Your task to perform on an android device: toggle show notifications on the lock screen Image 0: 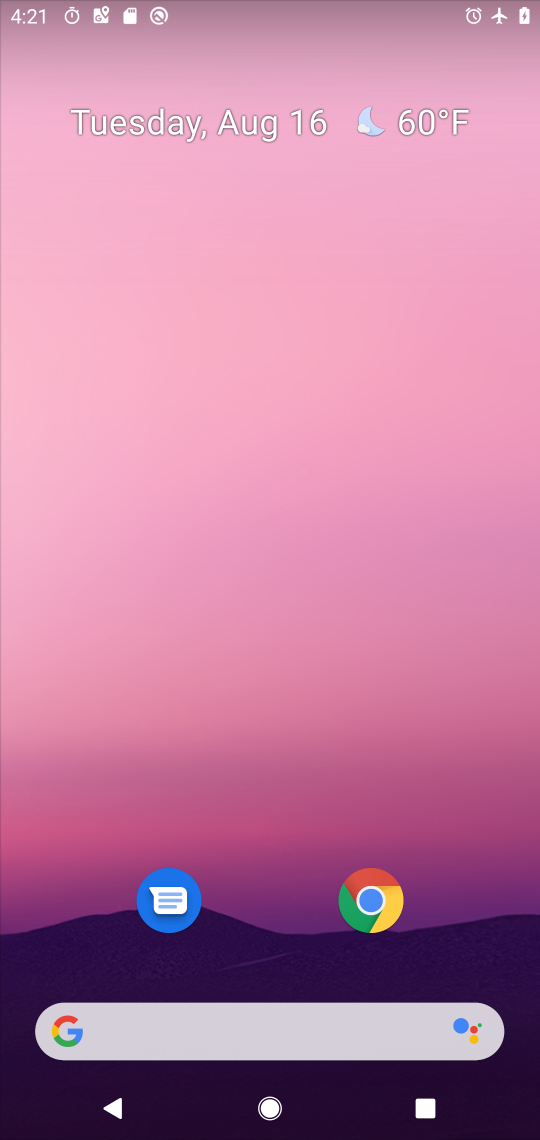
Step 0: click (372, 899)
Your task to perform on an android device: toggle show notifications on the lock screen Image 1: 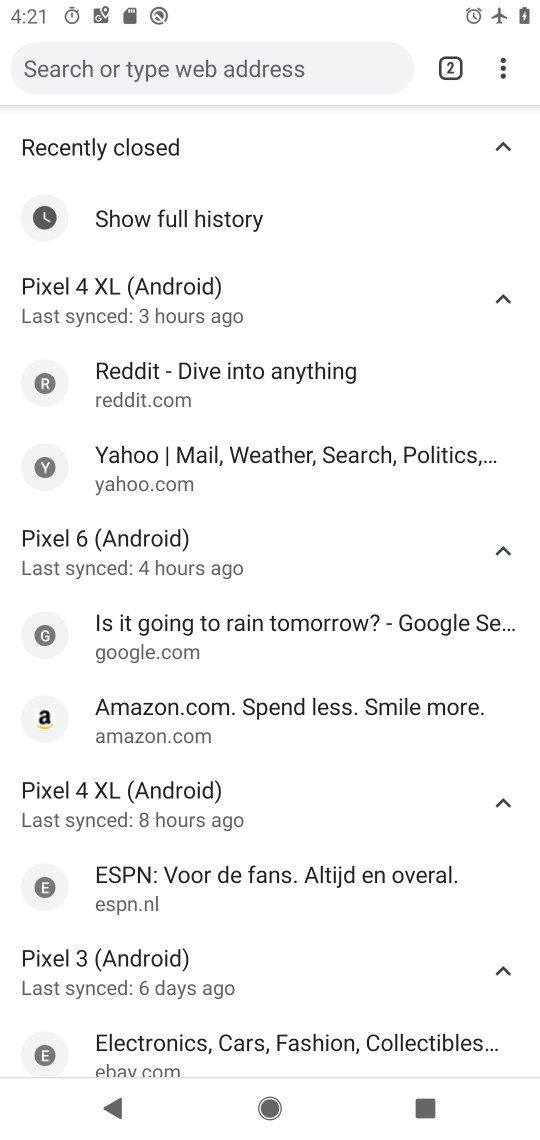
Step 1: click (499, 69)
Your task to perform on an android device: toggle show notifications on the lock screen Image 2: 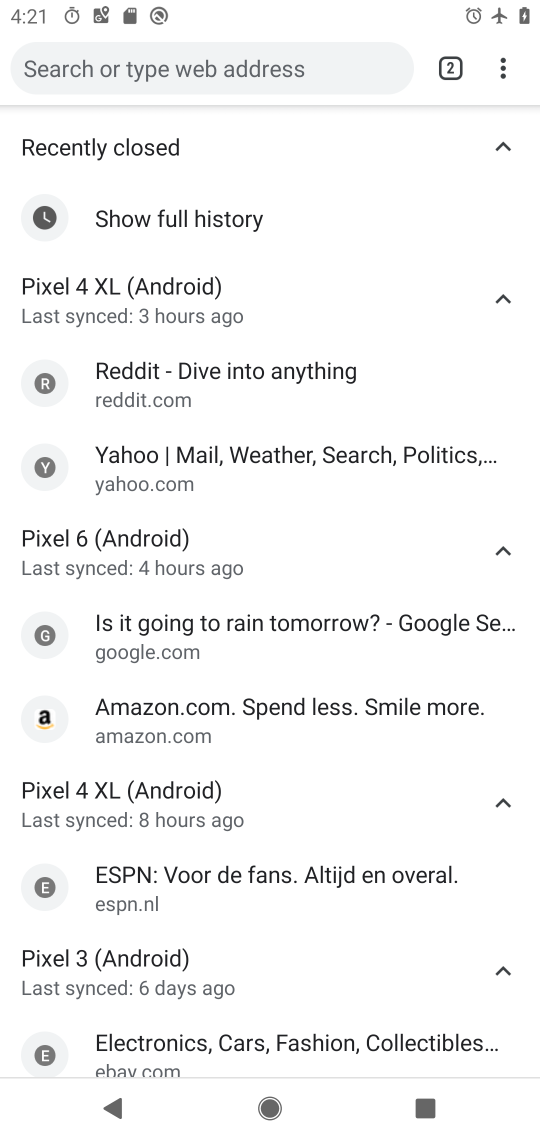
Step 2: drag from (499, 69) to (415, 342)
Your task to perform on an android device: toggle show notifications on the lock screen Image 3: 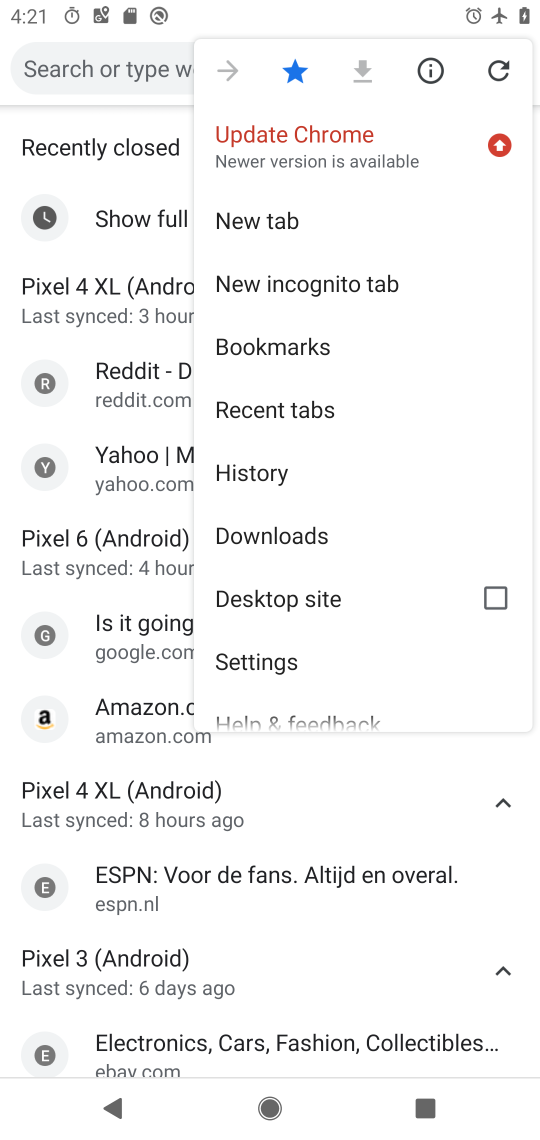
Step 3: drag from (248, 736) to (276, 658)
Your task to perform on an android device: toggle show notifications on the lock screen Image 4: 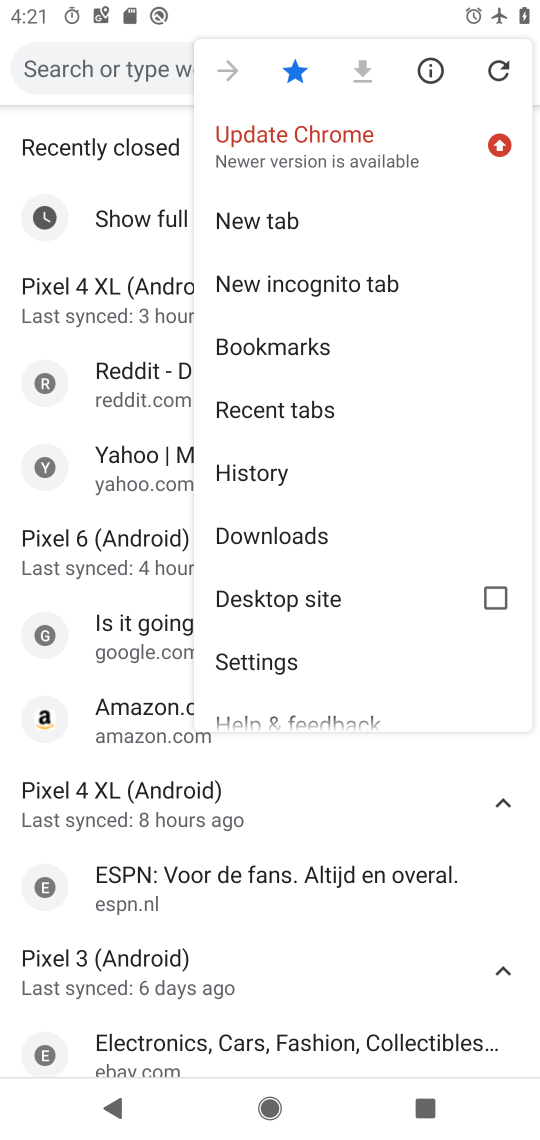
Step 4: press home button
Your task to perform on an android device: toggle show notifications on the lock screen Image 5: 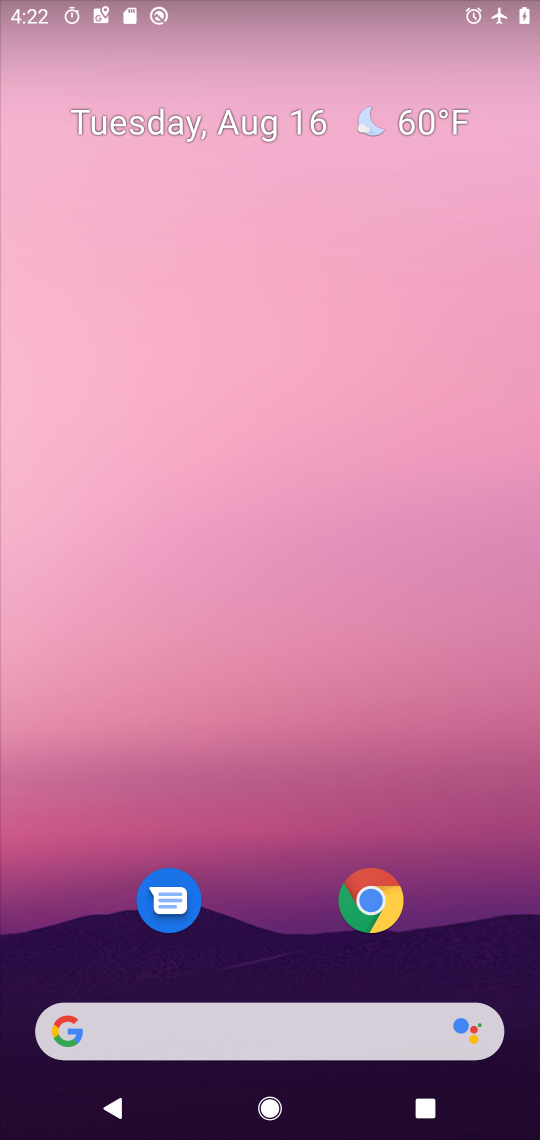
Step 5: drag from (259, 893) to (221, 195)
Your task to perform on an android device: toggle show notifications on the lock screen Image 6: 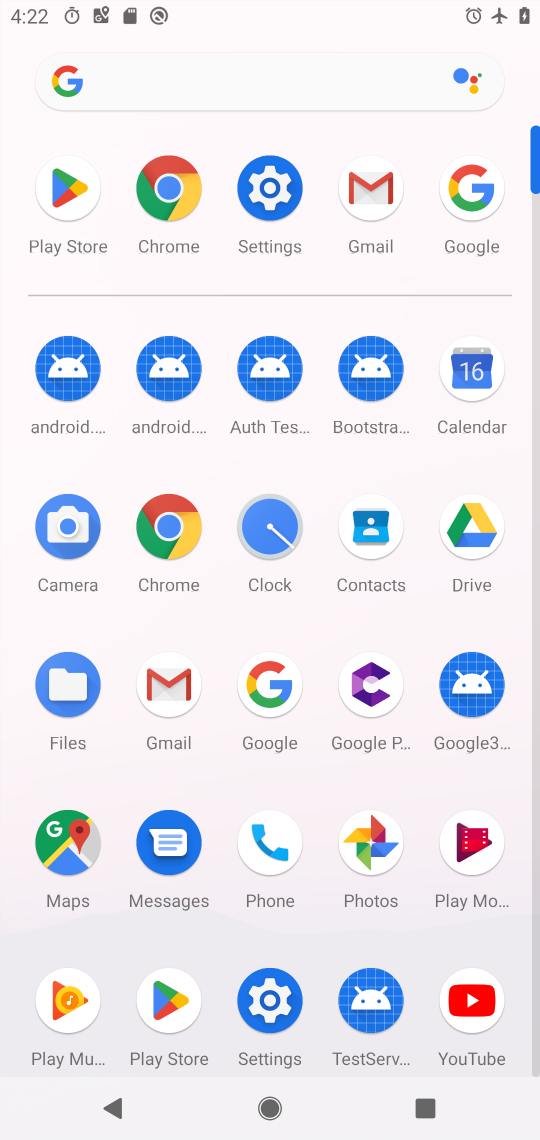
Step 6: click (286, 191)
Your task to perform on an android device: toggle show notifications on the lock screen Image 7: 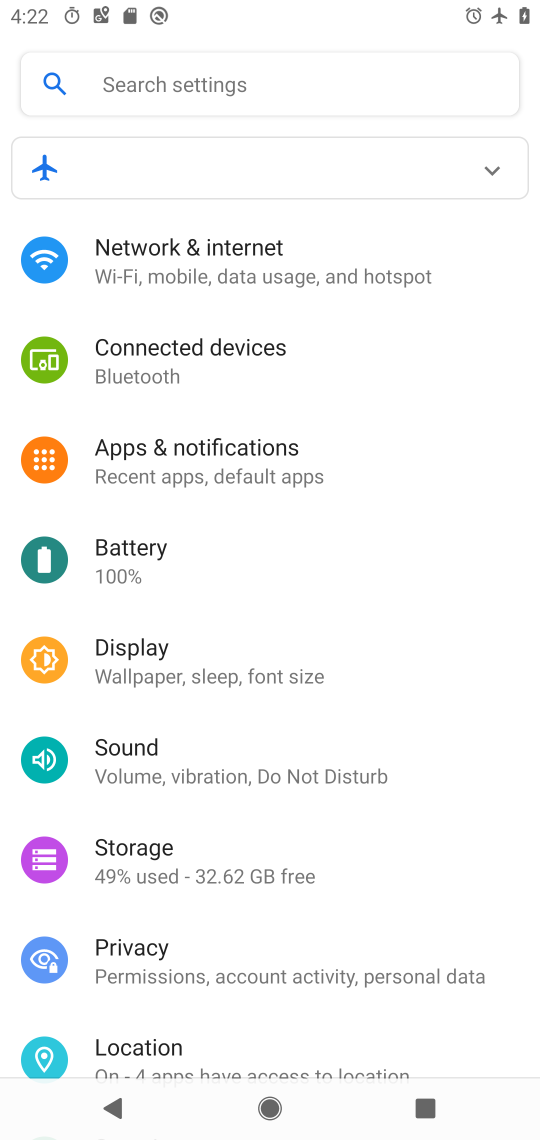
Step 7: click (188, 455)
Your task to perform on an android device: toggle show notifications on the lock screen Image 8: 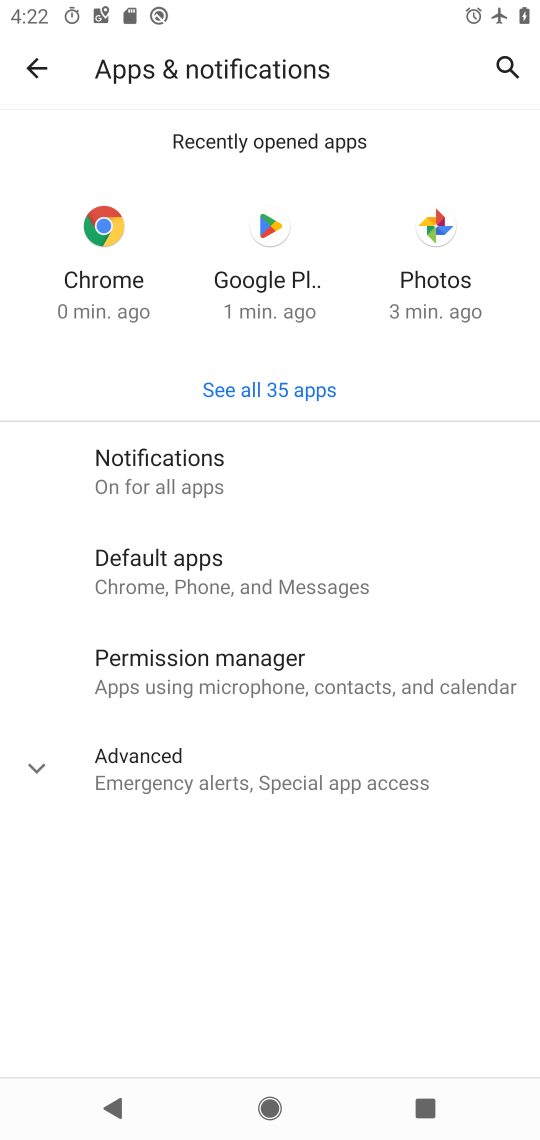
Step 8: click (133, 479)
Your task to perform on an android device: toggle show notifications on the lock screen Image 9: 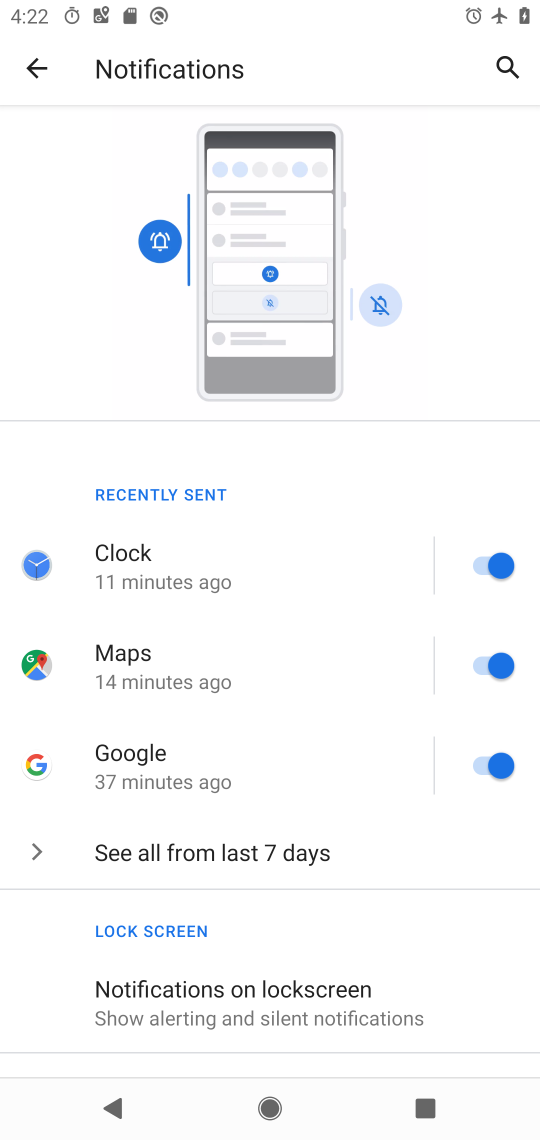
Step 9: drag from (257, 1017) to (216, 620)
Your task to perform on an android device: toggle show notifications on the lock screen Image 10: 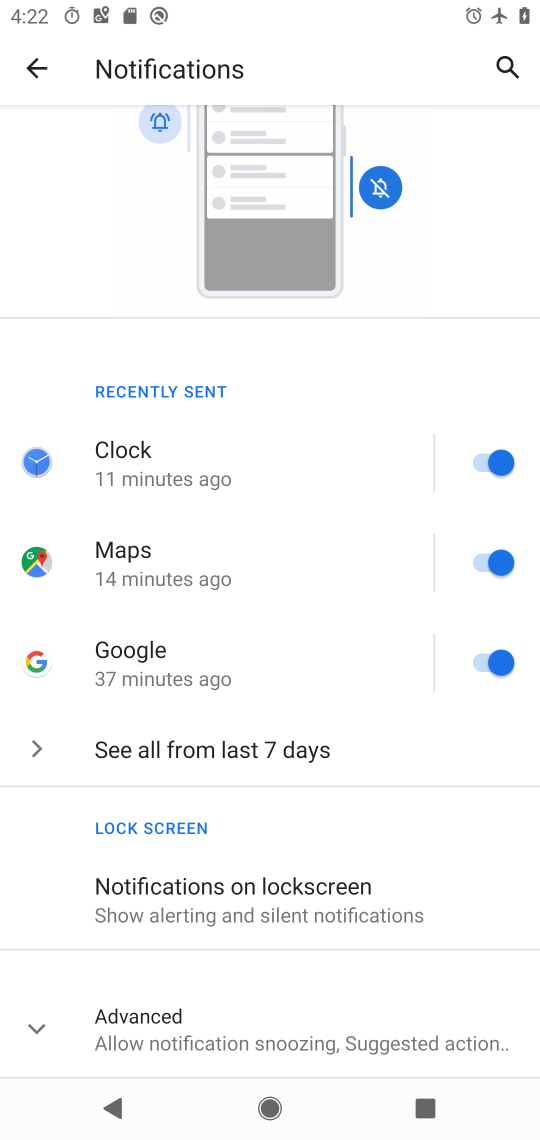
Step 10: click (185, 895)
Your task to perform on an android device: toggle show notifications on the lock screen Image 11: 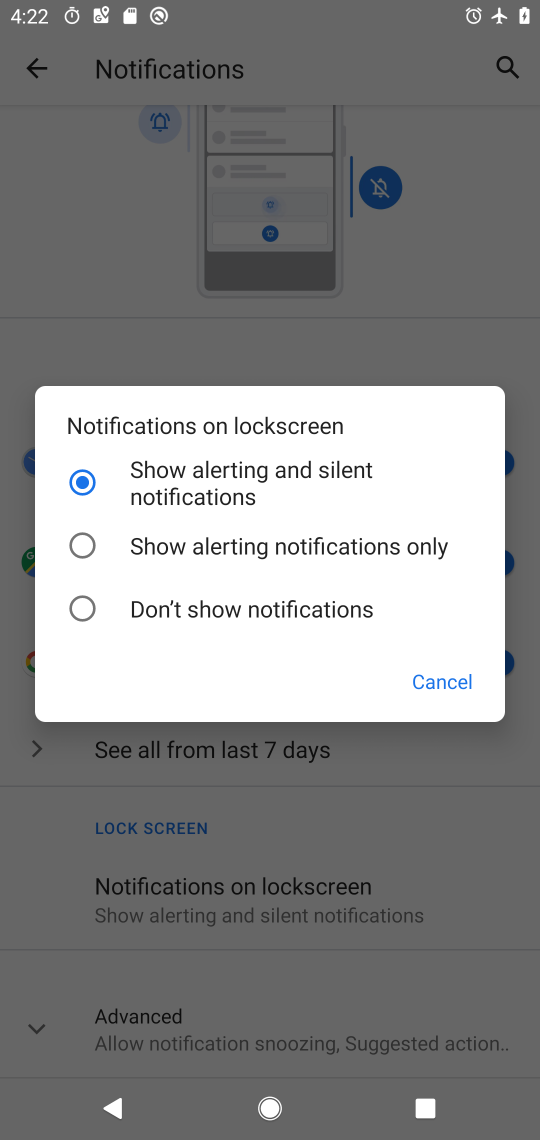
Step 11: click (81, 614)
Your task to perform on an android device: toggle show notifications on the lock screen Image 12: 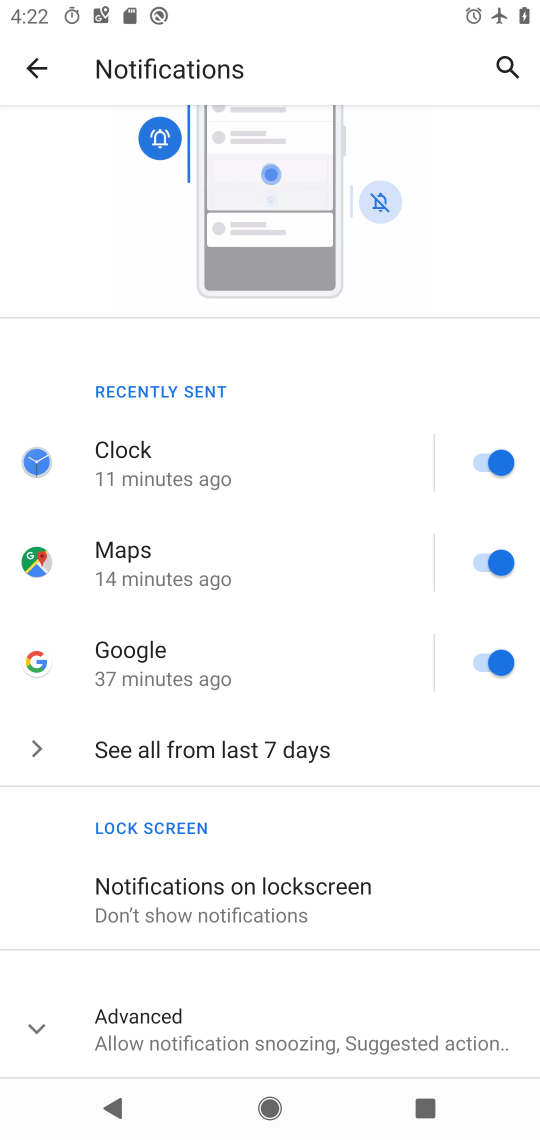
Step 12: task complete